Your task to perform on an android device: Go to internet settings Image 0: 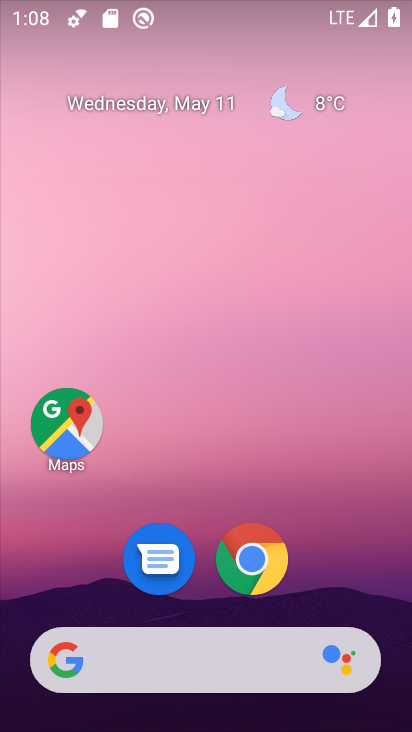
Step 0: drag from (213, 722) to (212, 41)
Your task to perform on an android device: Go to internet settings Image 1: 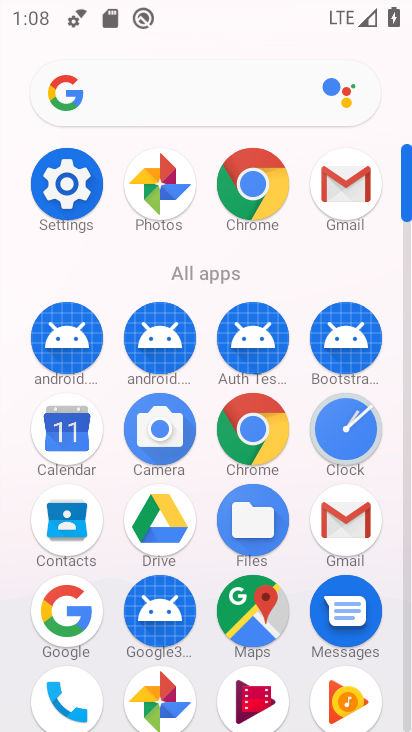
Step 1: click (68, 180)
Your task to perform on an android device: Go to internet settings Image 2: 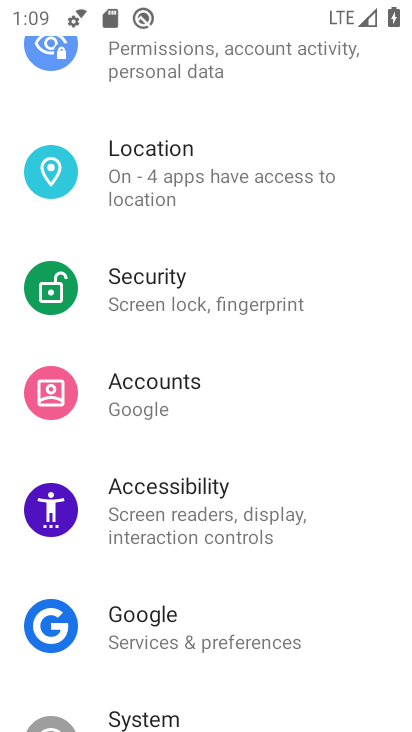
Step 2: drag from (225, 102) to (229, 551)
Your task to perform on an android device: Go to internet settings Image 3: 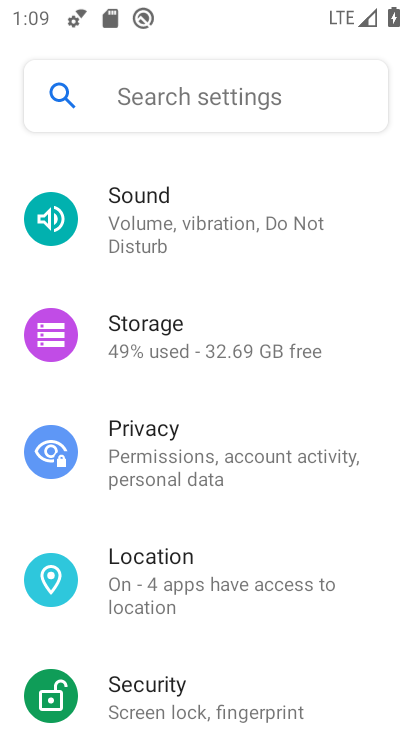
Step 3: drag from (227, 202) to (216, 608)
Your task to perform on an android device: Go to internet settings Image 4: 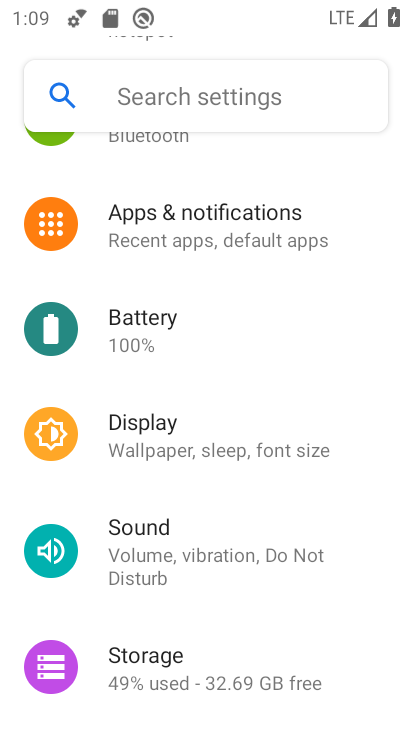
Step 4: drag from (222, 170) to (232, 599)
Your task to perform on an android device: Go to internet settings Image 5: 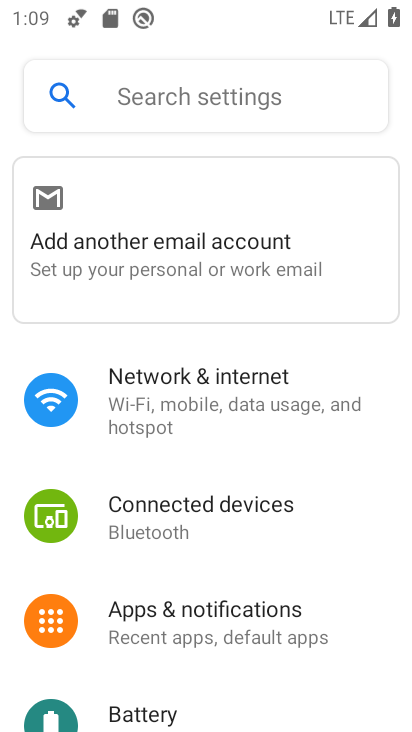
Step 5: click (159, 395)
Your task to perform on an android device: Go to internet settings Image 6: 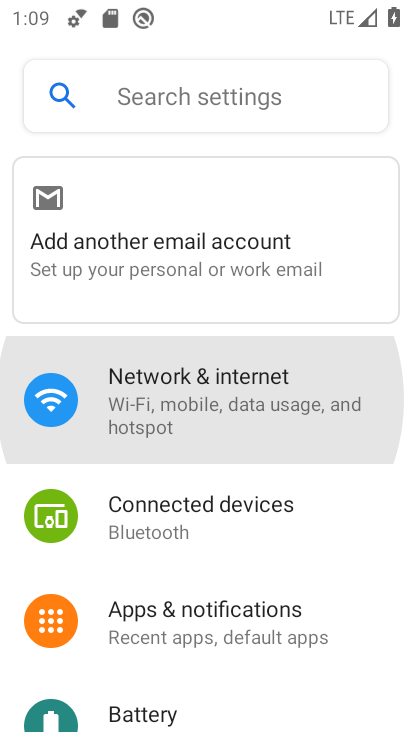
Step 6: click (159, 397)
Your task to perform on an android device: Go to internet settings Image 7: 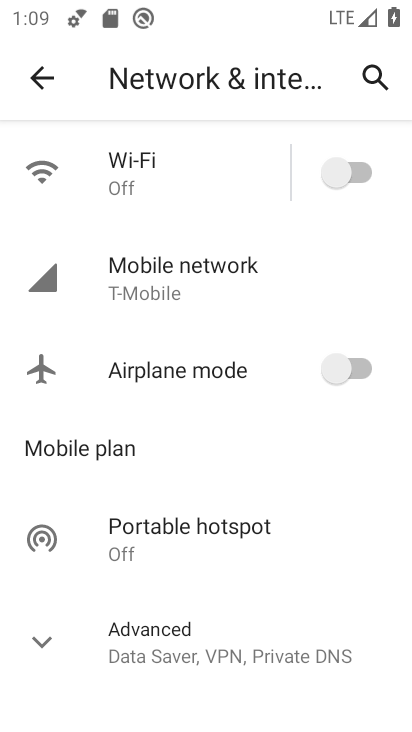
Step 7: task complete